Your task to perform on an android device: Open Wikipedia Image 0: 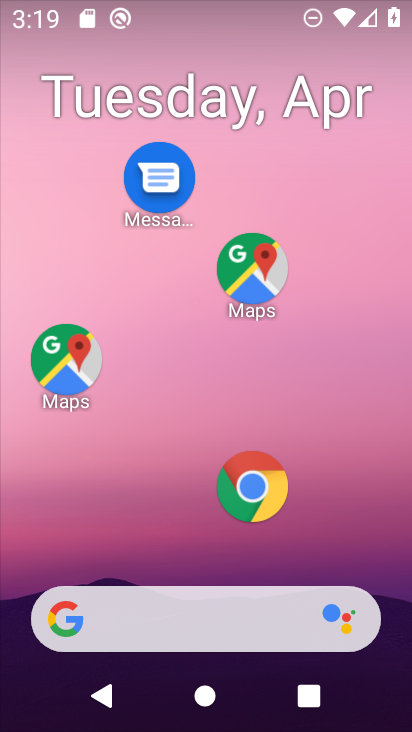
Step 0: click (265, 507)
Your task to perform on an android device: Open Wikipedia Image 1: 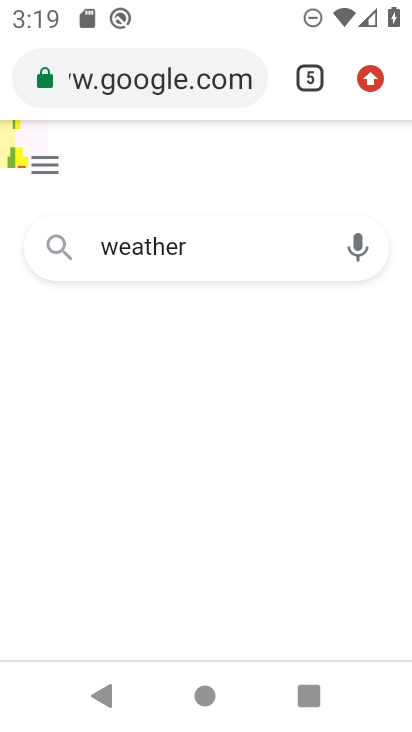
Step 1: click (311, 83)
Your task to perform on an android device: Open Wikipedia Image 2: 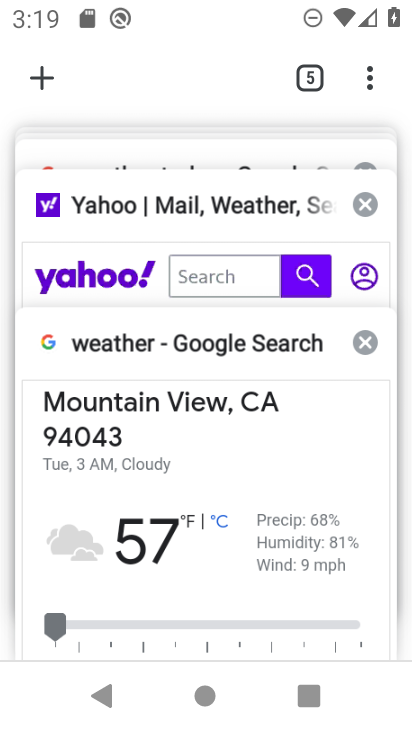
Step 2: drag from (266, 242) to (279, 590)
Your task to perform on an android device: Open Wikipedia Image 3: 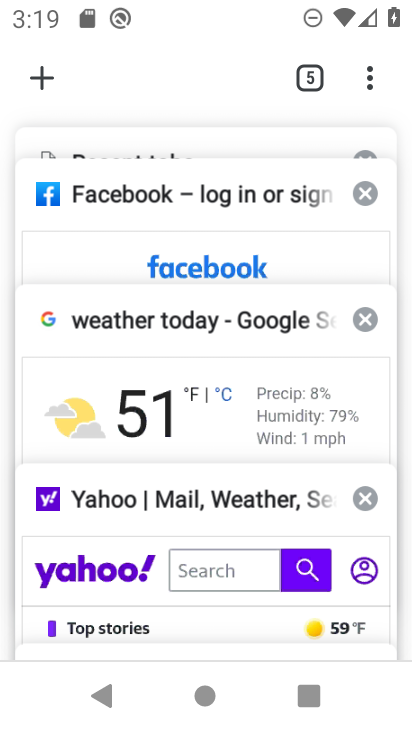
Step 3: drag from (232, 250) to (241, 598)
Your task to perform on an android device: Open Wikipedia Image 4: 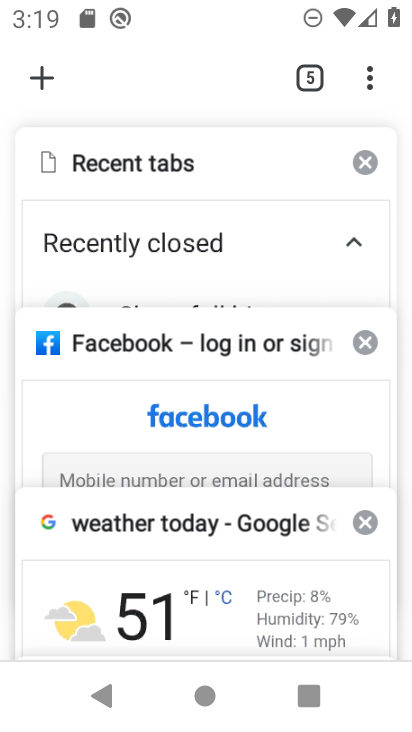
Step 4: click (176, 245)
Your task to perform on an android device: Open Wikipedia Image 5: 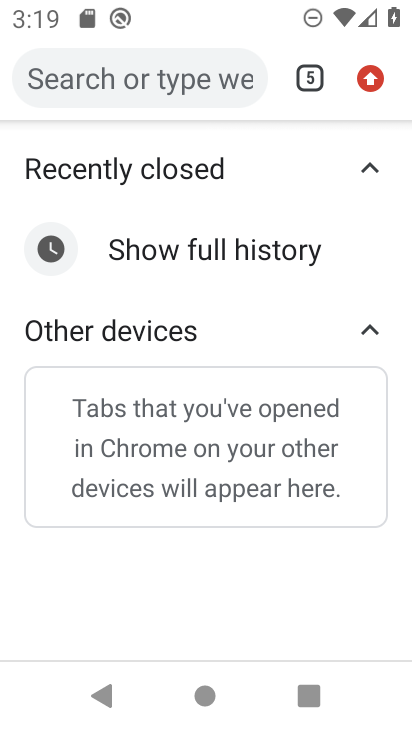
Step 5: click (167, 72)
Your task to perform on an android device: Open Wikipedia Image 6: 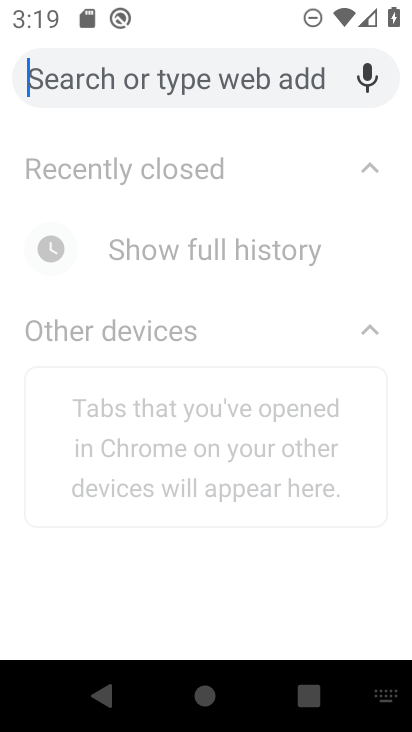
Step 6: type "Wikipedia"
Your task to perform on an android device: Open Wikipedia Image 7: 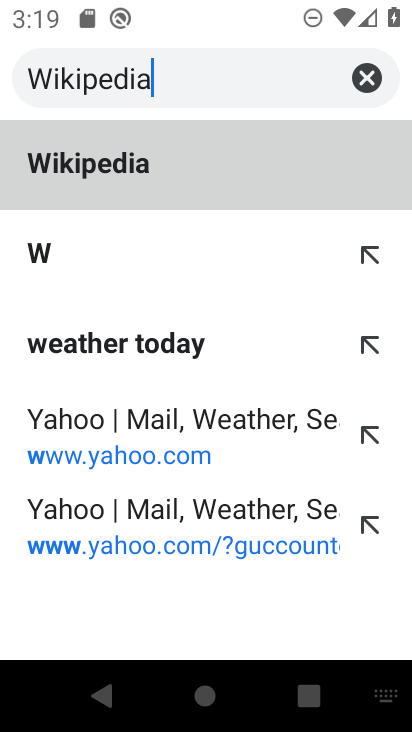
Step 7: type ""
Your task to perform on an android device: Open Wikipedia Image 8: 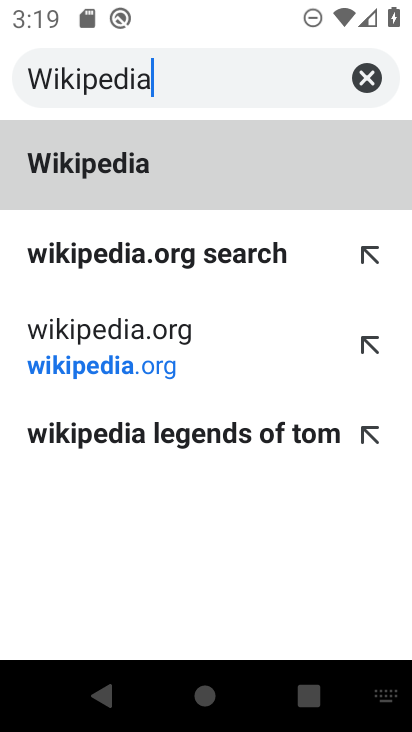
Step 8: click (243, 181)
Your task to perform on an android device: Open Wikipedia Image 9: 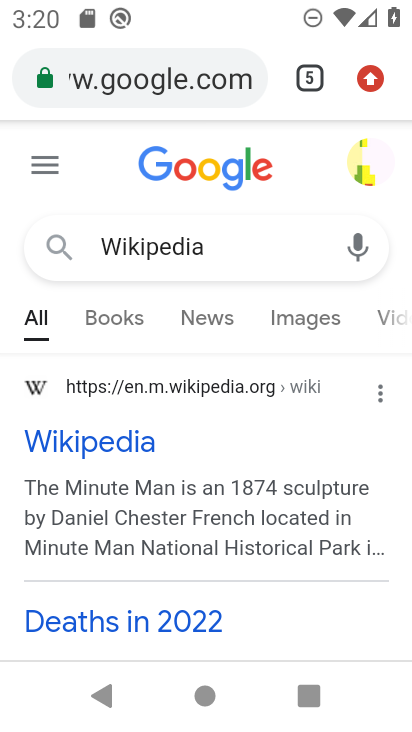
Step 9: click (131, 437)
Your task to perform on an android device: Open Wikipedia Image 10: 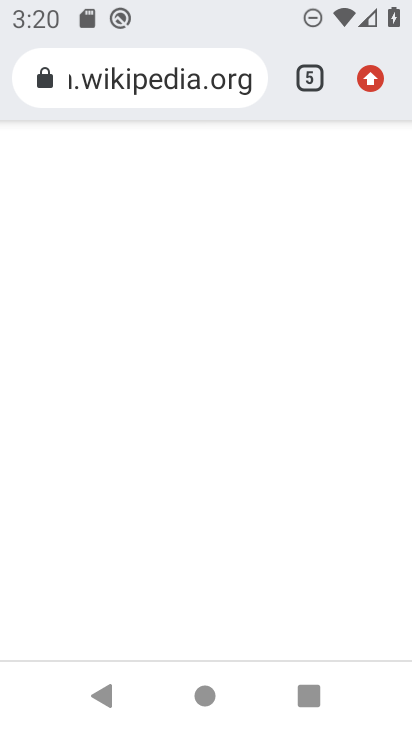
Step 10: task complete